Your task to perform on an android device: refresh tabs in the chrome app Image 0: 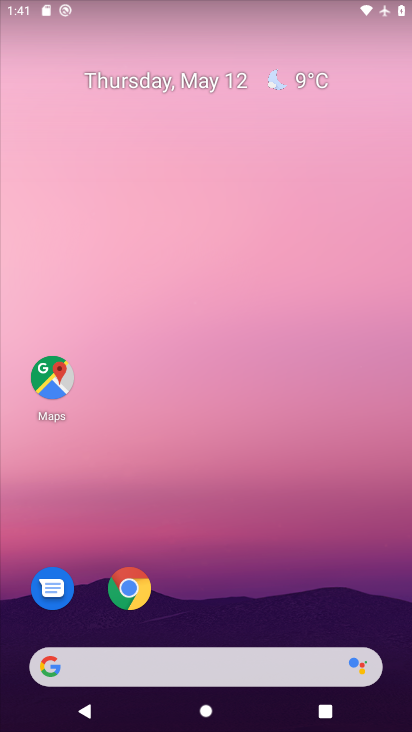
Step 0: drag from (311, 482) to (381, 60)
Your task to perform on an android device: refresh tabs in the chrome app Image 1: 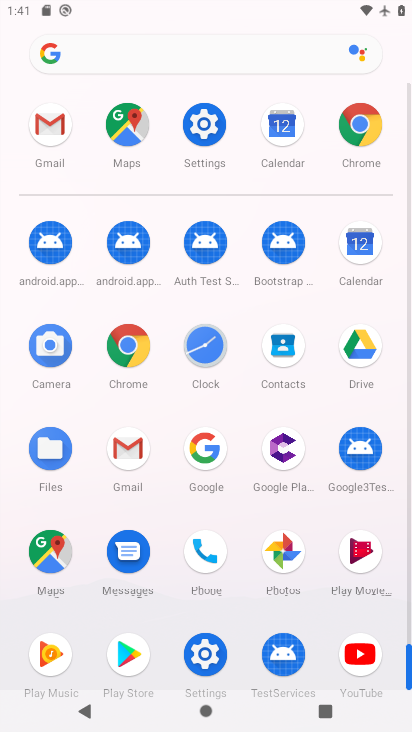
Step 1: click (352, 125)
Your task to perform on an android device: refresh tabs in the chrome app Image 2: 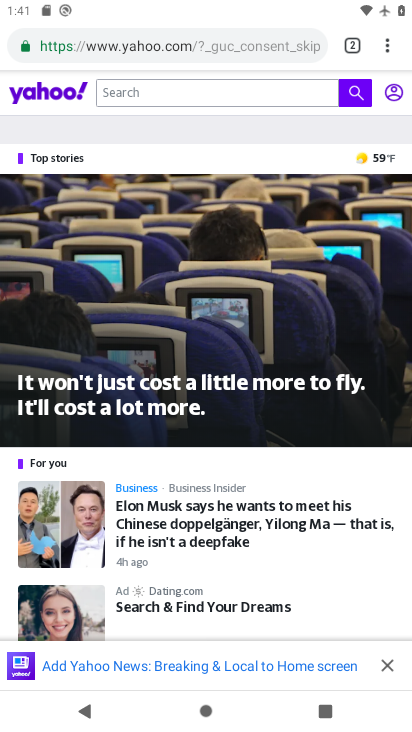
Step 2: click (380, 52)
Your task to perform on an android device: refresh tabs in the chrome app Image 3: 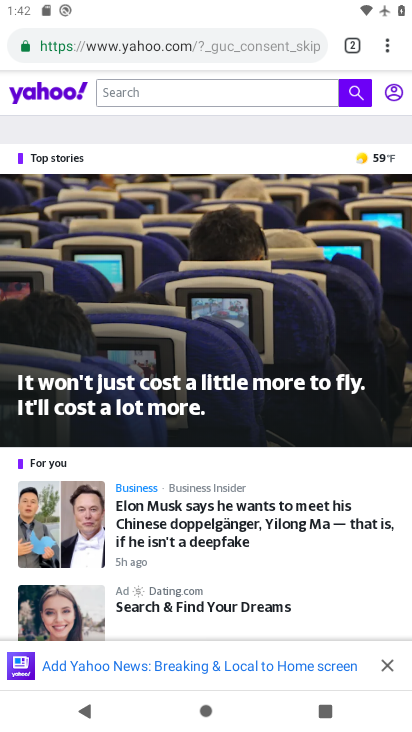
Step 3: task complete